Your task to perform on an android device: Open Google Chrome and click the shortcut for Amazon.com Image 0: 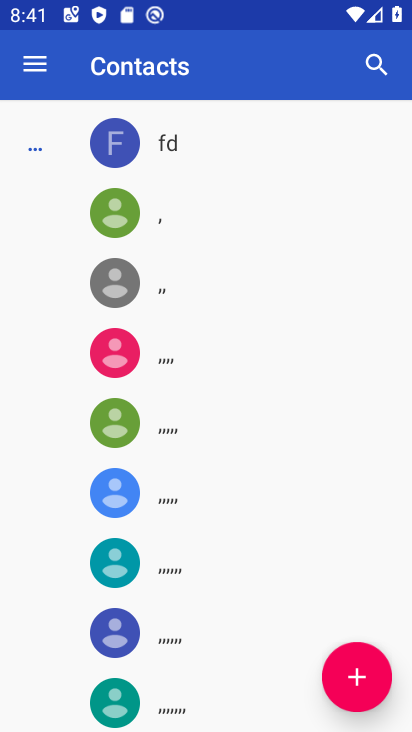
Step 0: press home button
Your task to perform on an android device: Open Google Chrome and click the shortcut for Amazon.com Image 1: 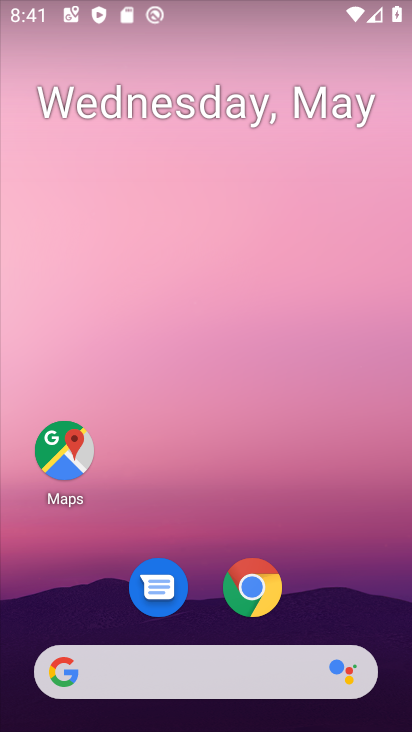
Step 1: click (252, 582)
Your task to perform on an android device: Open Google Chrome and click the shortcut for Amazon.com Image 2: 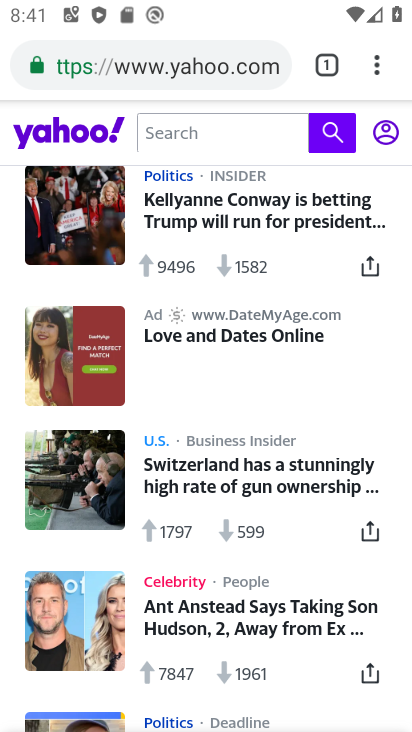
Step 2: click (376, 77)
Your task to perform on an android device: Open Google Chrome and click the shortcut for Amazon.com Image 3: 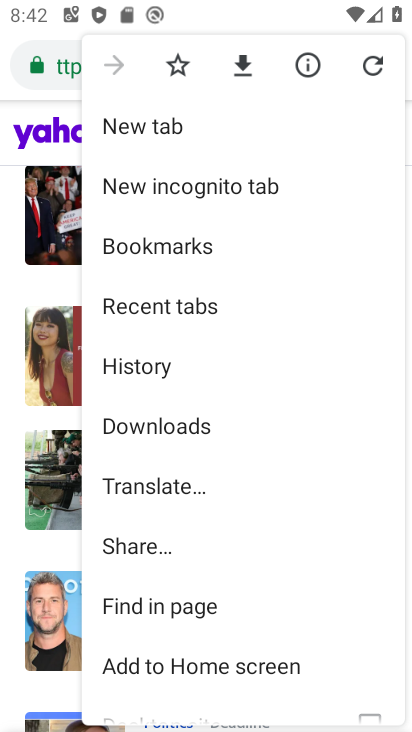
Step 3: click (150, 133)
Your task to perform on an android device: Open Google Chrome and click the shortcut for Amazon.com Image 4: 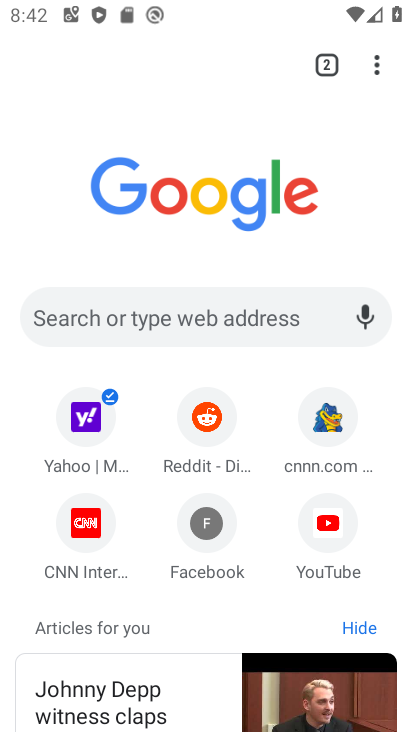
Step 4: task complete